Your task to perform on an android device: Check the weather Image 0: 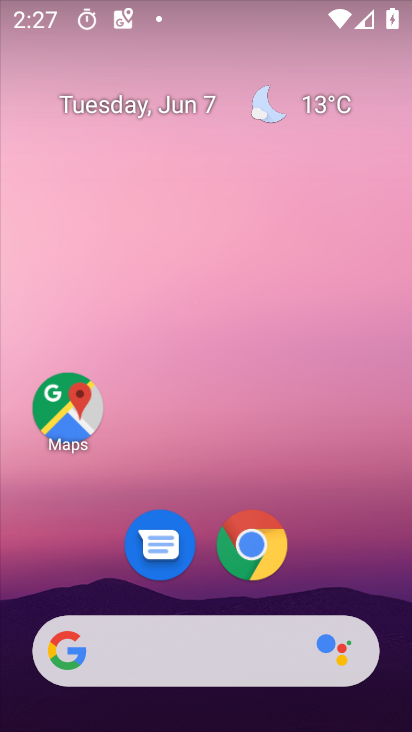
Step 0: click (310, 101)
Your task to perform on an android device: Check the weather Image 1: 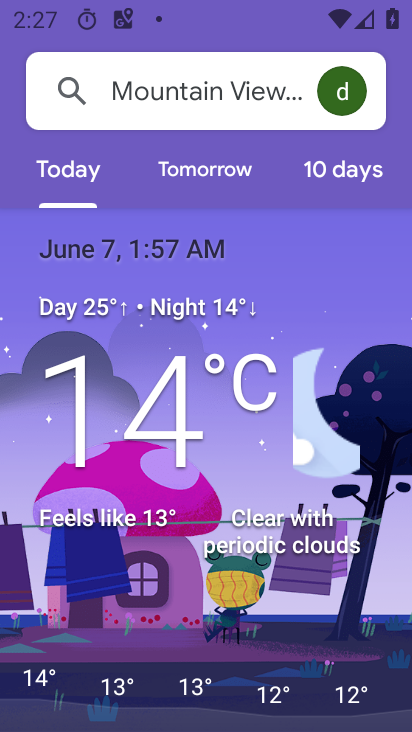
Step 1: task complete